Your task to perform on an android device: Go to Reddit.com Image 0: 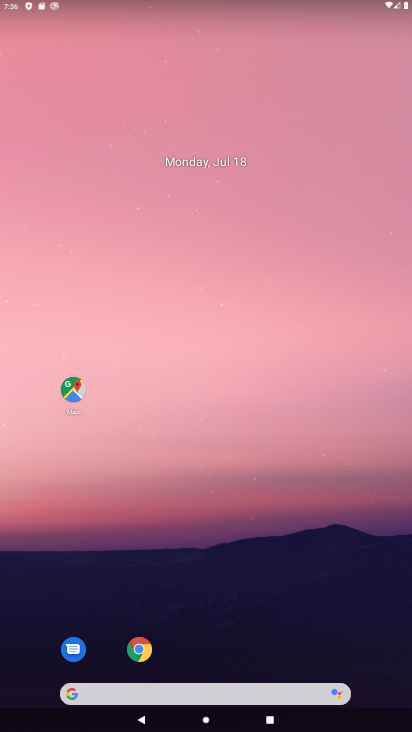
Step 0: drag from (287, 632) to (260, 83)
Your task to perform on an android device: Go to Reddit.com Image 1: 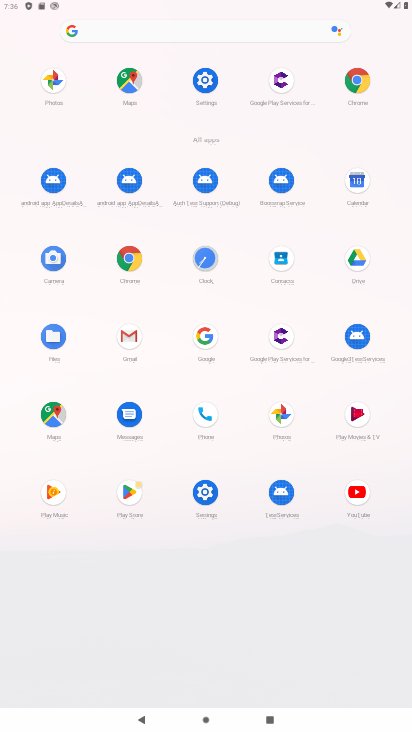
Step 1: click (358, 81)
Your task to perform on an android device: Go to Reddit.com Image 2: 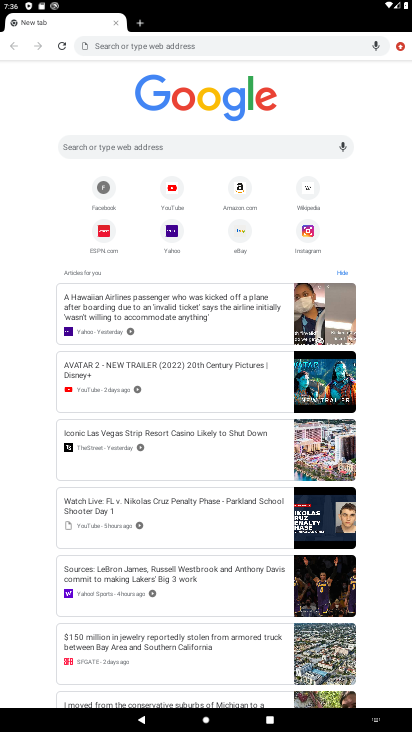
Step 2: click (177, 41)
Your task to perform on an android device: Go to Reddit.com Image 3: 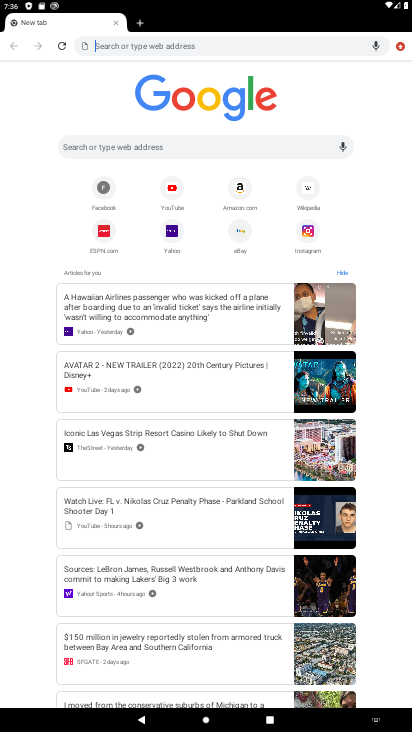
Step 3: type "reddit.com"
Your task to perform on an android device: Go to Reddit.com Image 4: 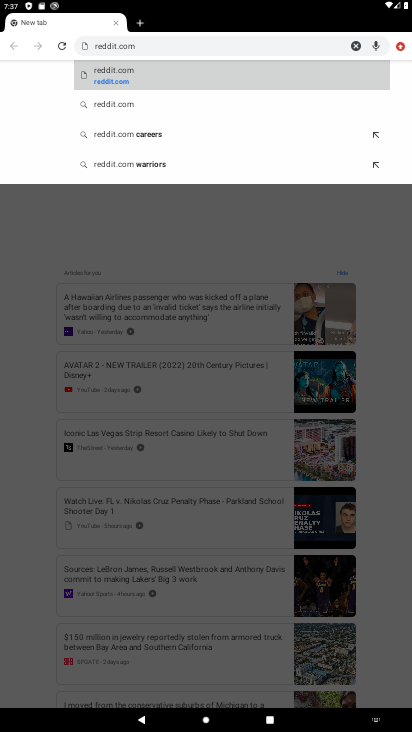
Step 4: click (112, 78)
Your task to perform on an android device: Go to Reddit.com Image 5: 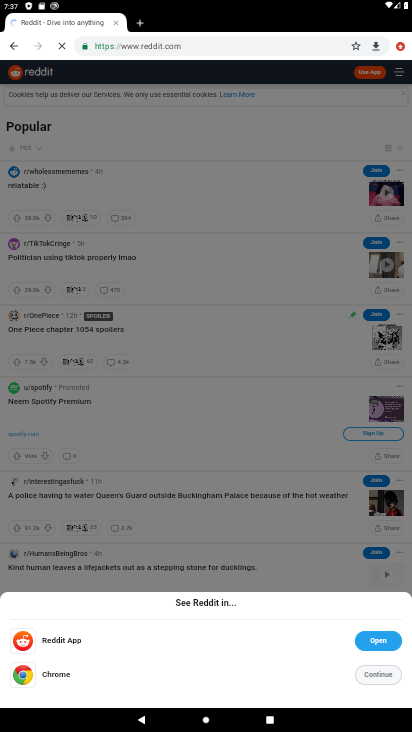
Step 5: task complete